Your task to perform on an android device: toggle wifi Image 0: 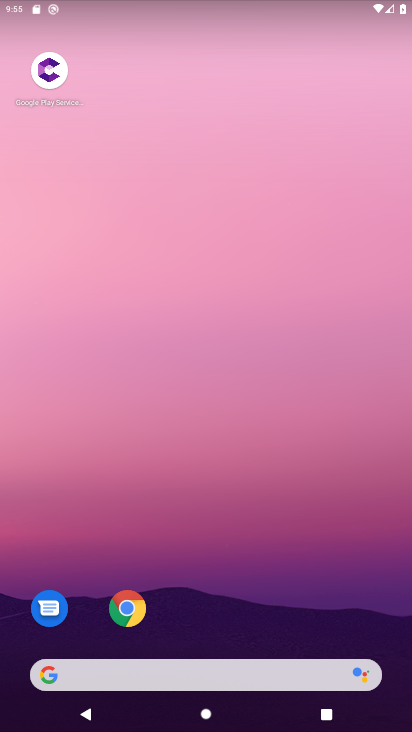
Step 0: drag from (210, 602) to (240, 21)
Your task to perform on an android device: toggle wifi Image 1: 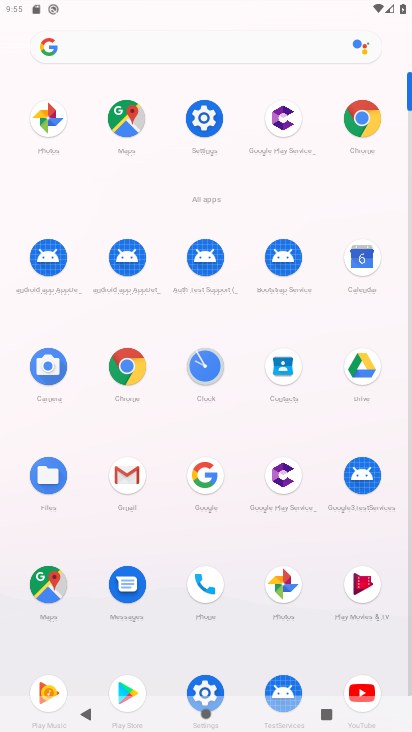
Step 1: click (207, 118)
Your task to perform on an android device: toggle wifi Image 2: 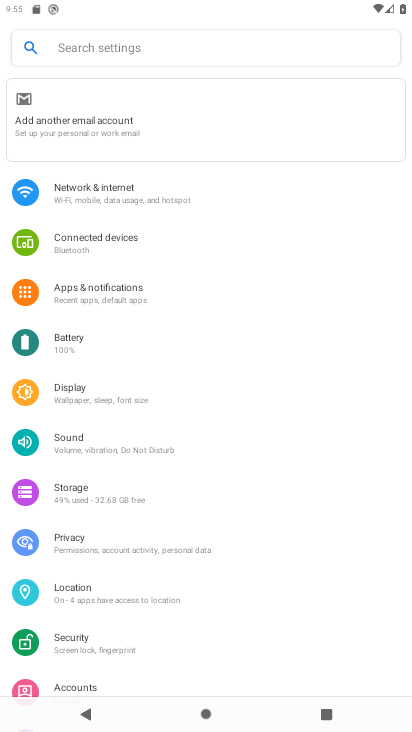
Step 2: click (105, 185)
Your task to perform on an android device: toggle wifi Image 3: 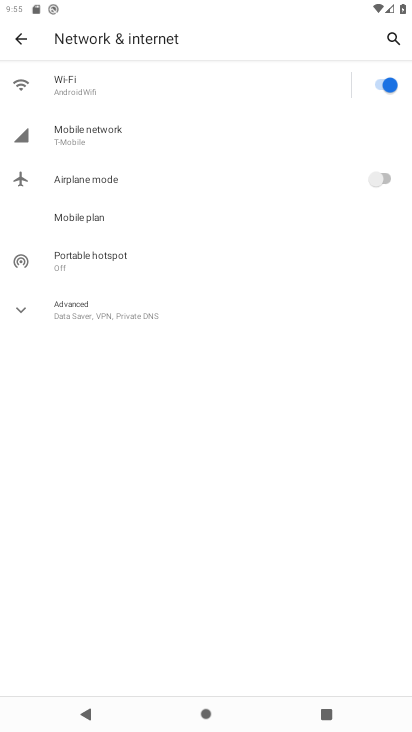
Step 3: click (369, 74)
Your task to perform on an android device: toggle wifi Image 4: 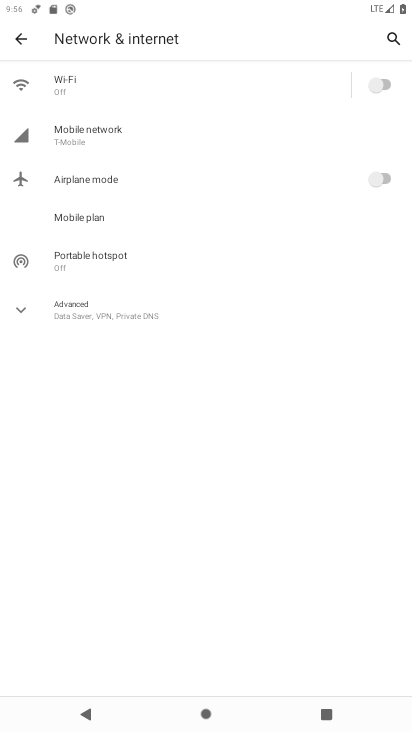
Step 4: task complete